Your task to perform on an android device: What's the weather? Image 0: 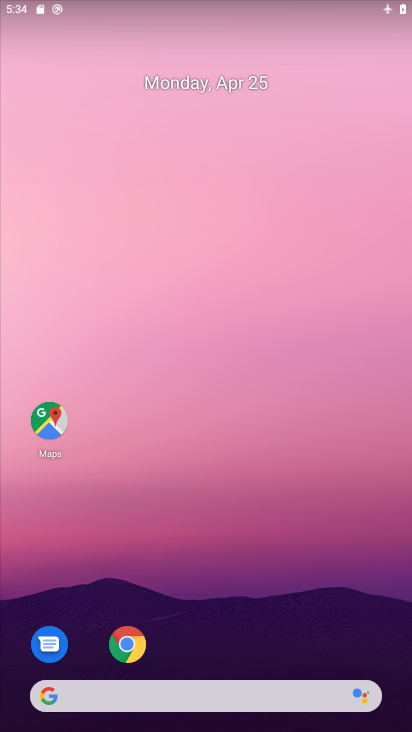
Step 0: drag from (258, 549) to (227, 33)
Your task to perform on an android device: What's the weather? Image 1: 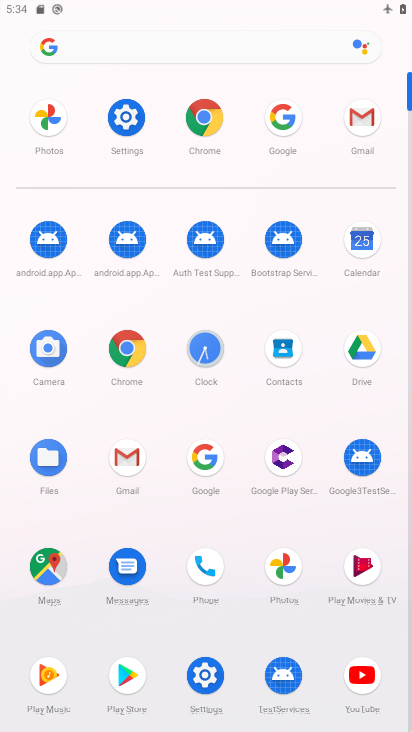
Step 1: click (205, 464)
Your task to perform on an android device: What's the weather? Image 2: 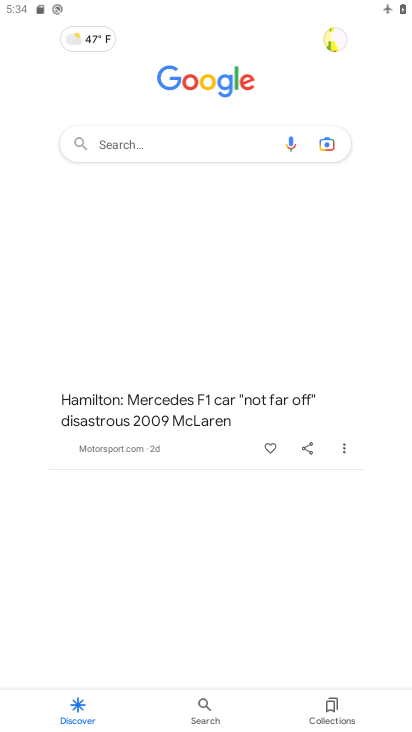
Step 2: click (166, 148)
Your task to perform on an android device: What's the weather? Image 3: 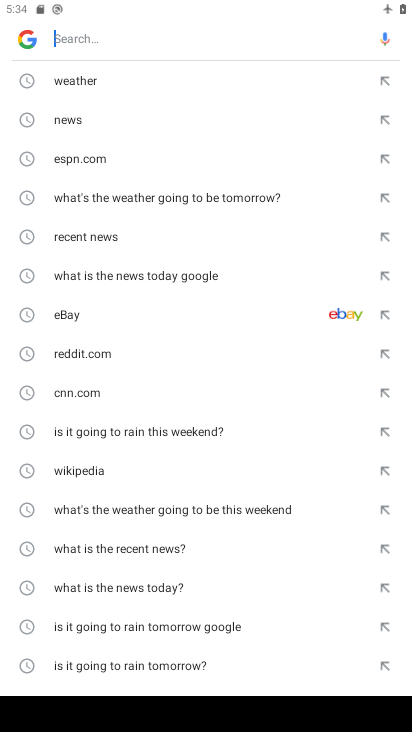
Step 3: click (87, 83)
Your task to perform on an android device: What's the weather? Image 4: 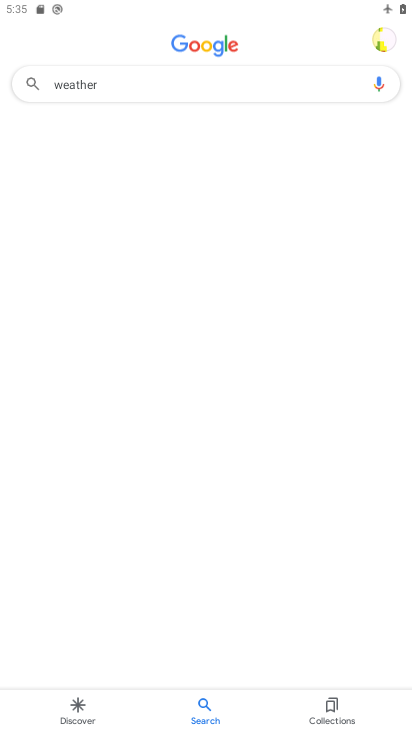
Step 4: click (227, 83)
Your task to perform on an android device: What's the weather? Image 5: 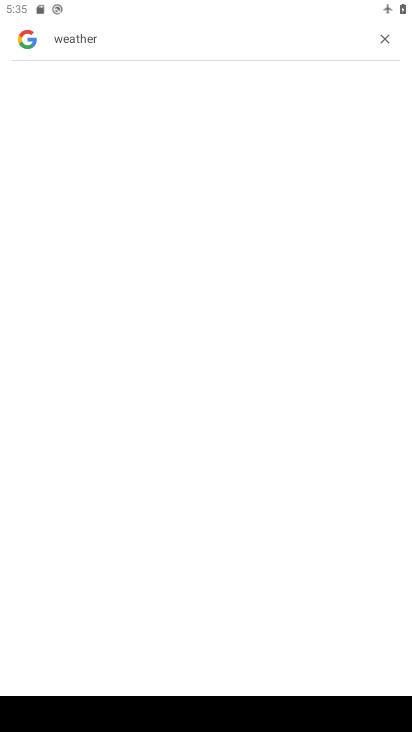
Step 5: click (381, 35)
Your task to perform on an android device: What's the weather? Image 6: 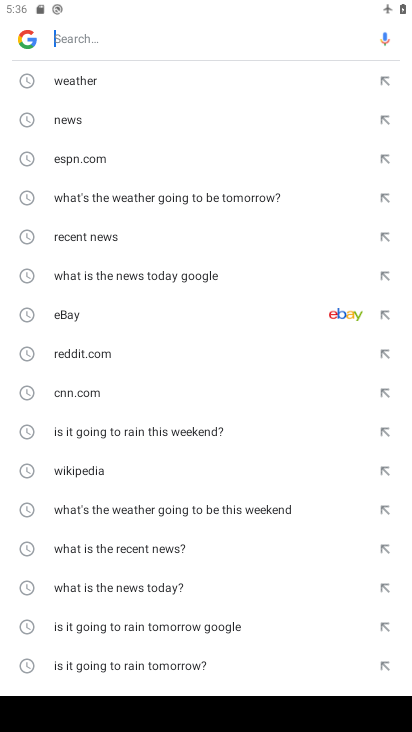
Step 6: type "what's the weather?"
Your task to perform on an android device: What's the weather? Image 7: 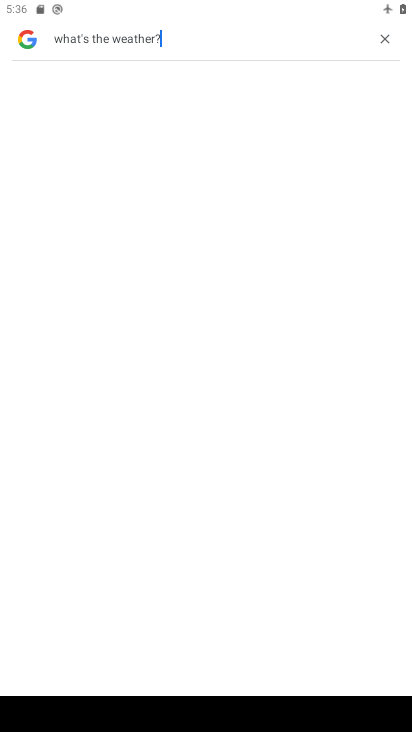
Step 7: task complete